Your task to perform on an android device: change alarm snooze length Image 0: 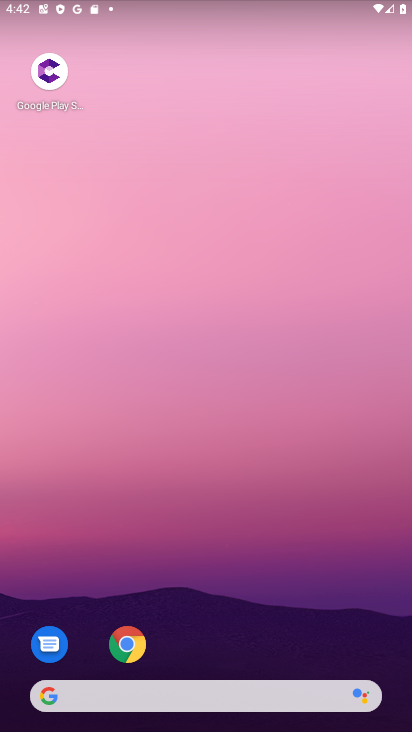
Step 0: click (214, 211)
Your task to perform on an android device: change alarm snooze length Image 1: 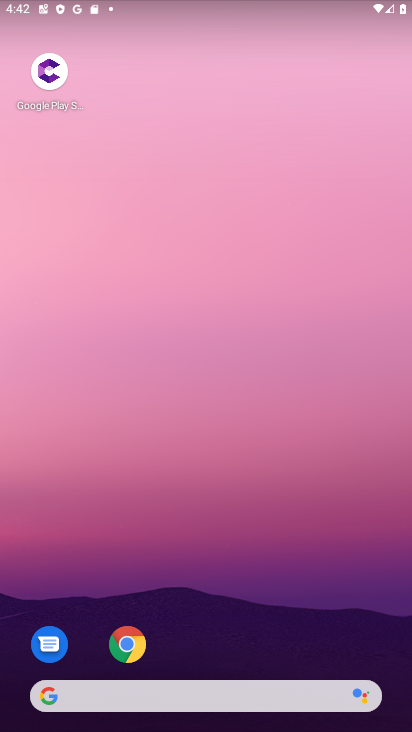
Step 1: drag from (161, 365) to (161, 264)
Your task to perform on an android device: change alarm snooze length Image 2: 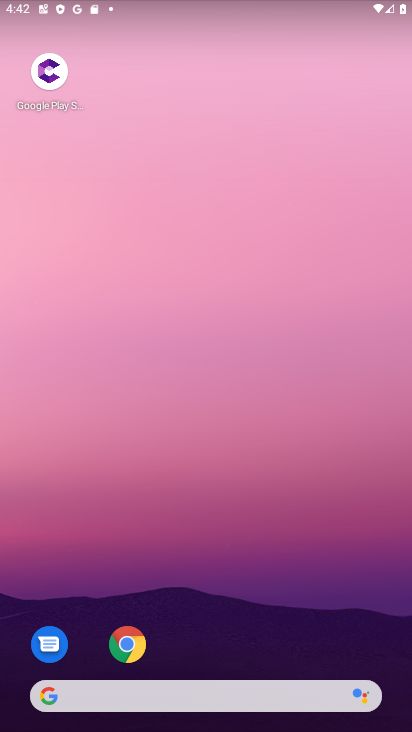
Step 2: drag from (230, 601) to (230, 221)
Your task to perform on an android device: change alarm snooze length Image 3: 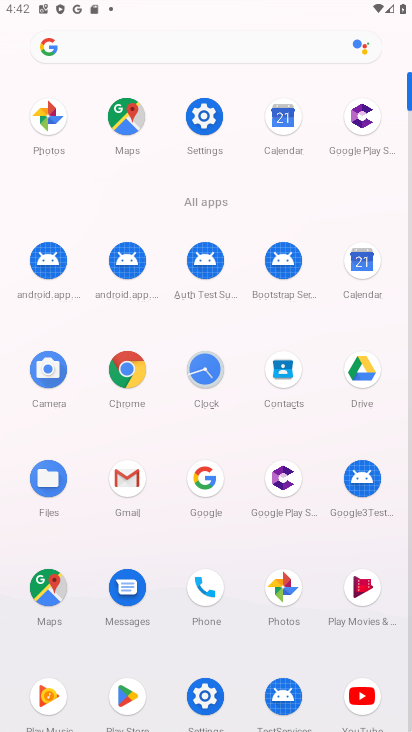
Step 3: click (194, 391)
Your task to perform on an android device: change alarm snooze length Image 4: 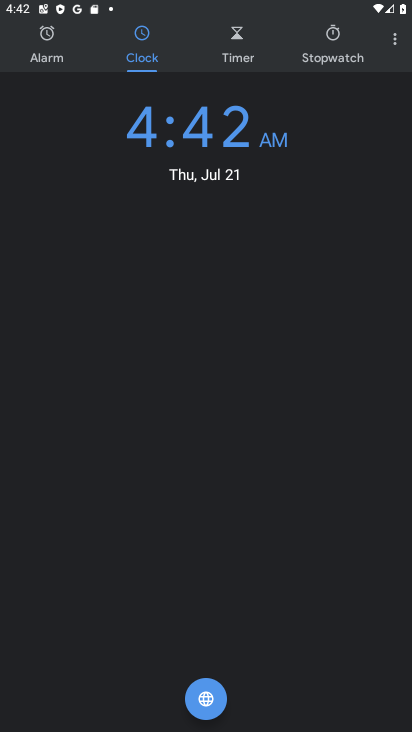
Step 4: click (396, 39)
Your task to perform on an android device: change alarm snooze length Image 5: 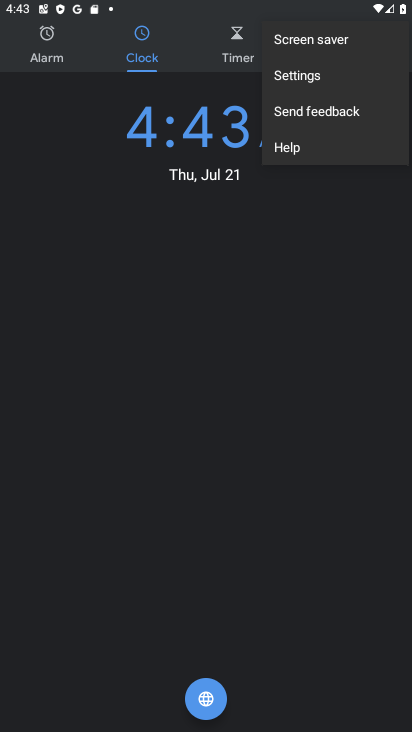
Step 5: click (305, 76)
Your task to perform on an android device: change alarm snooze length Image 6: 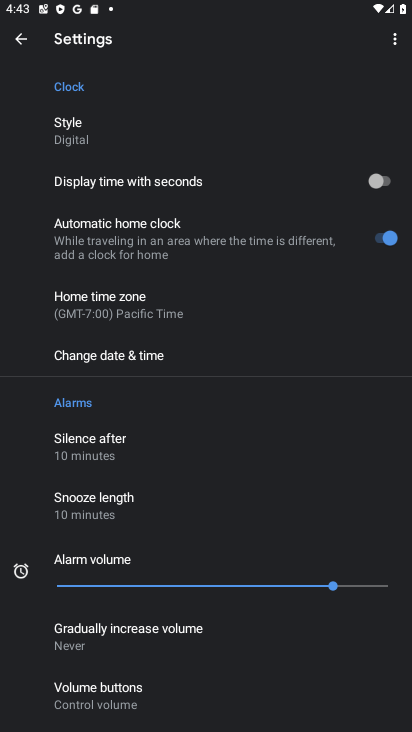
Step 6: click (109, 498)
Your task to perform on an android device: change alarm snooze length Image 7: 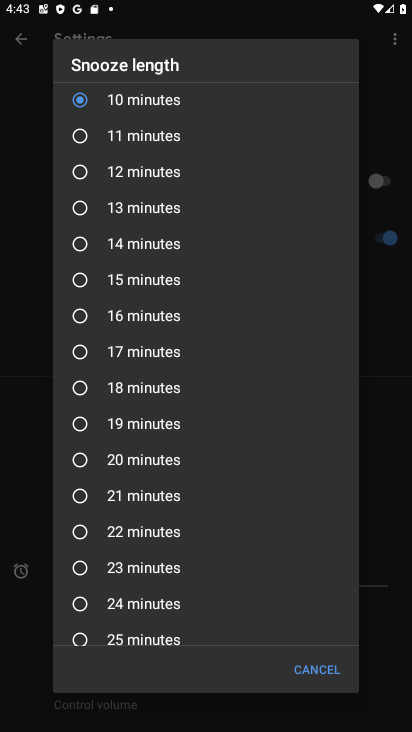
Step 7: click (78, 496)
Your task to perform on an android device: change alarm snooze length Image 8: 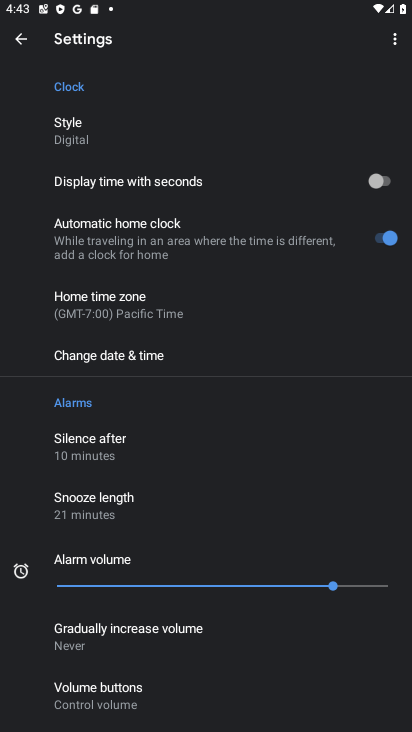
Step 8: task complete